Your task to perform on an android device: turn on sleep mode Image 0: 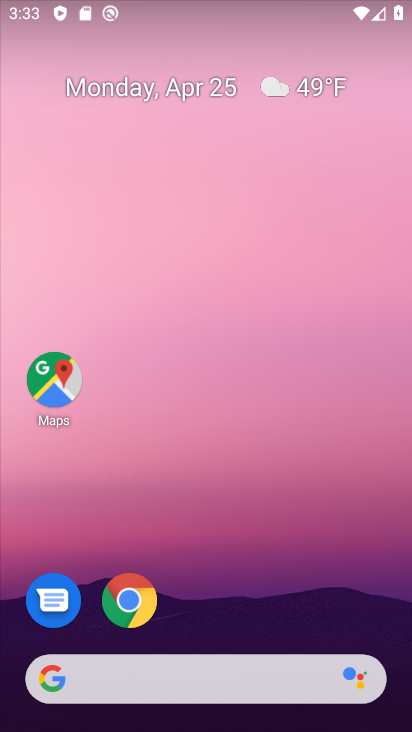
Step 0: drag from (278, 562) to (235, 0)
Your task to perform on an android device: turn on sleep mode Image 1: 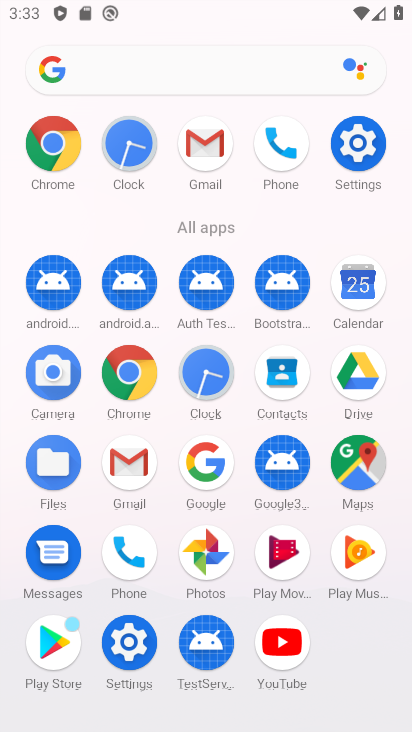
Step 1: click (356, 145)
Your task to perform on an android device: turn on sleep mode Image 2: 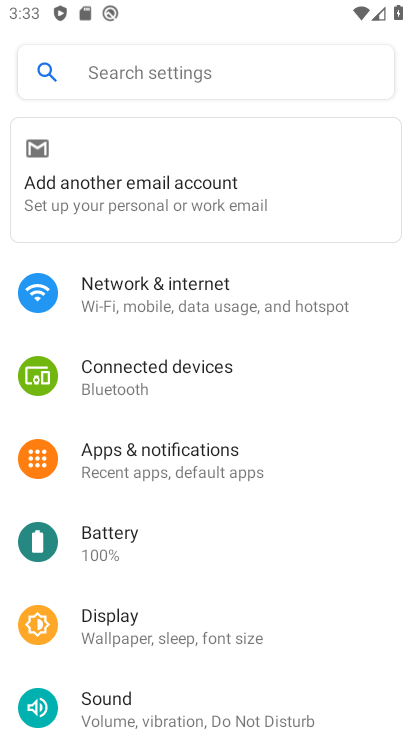
Step 2: click (183, 627)
Your task to perform on an android device: turn on sleep mode Image 3: 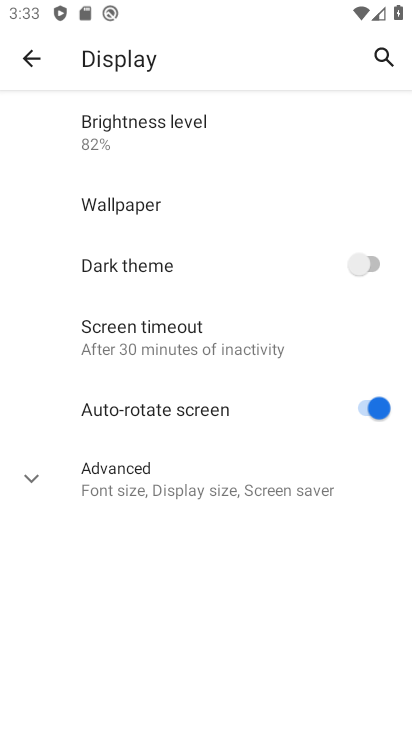
Step 3: click (27, 476)
Your task to perform on an android device: turn on sleep mode Image 4: 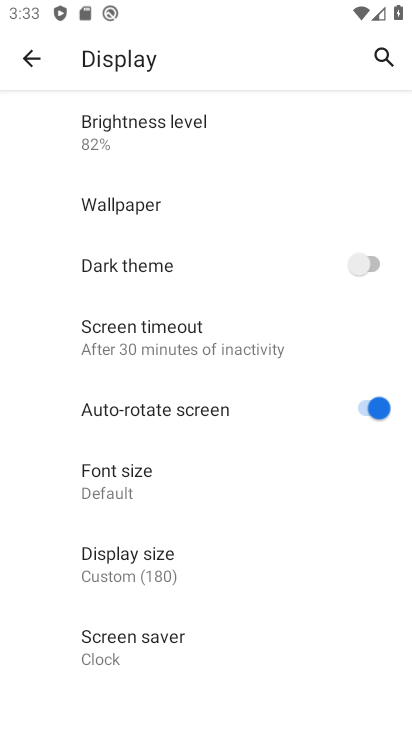
Step 4: task complete